Your task to perform on an android device: Go to notification settings Image 0: 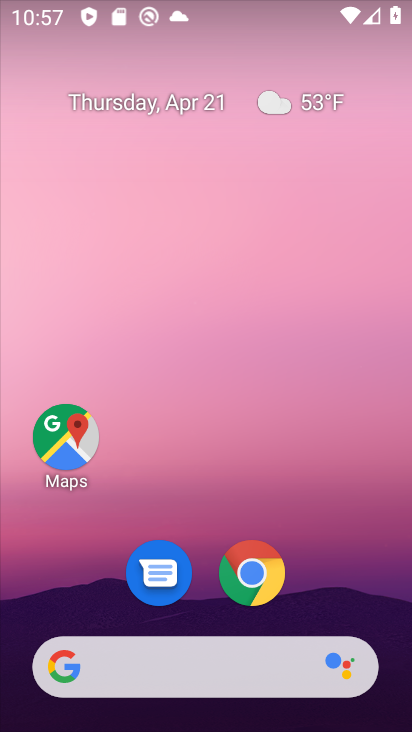
Step 0: drag from (348, 559) to (360, 103)
Your task to perform on an android device: Go to notification settings Image 1: 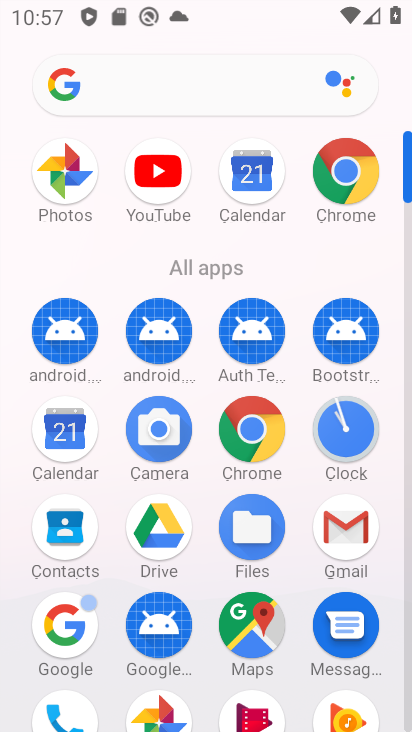
Step 1: drag from (300, 288) to (318, 4)
Your task to perform on an android device: Go to notification settings Image 2: 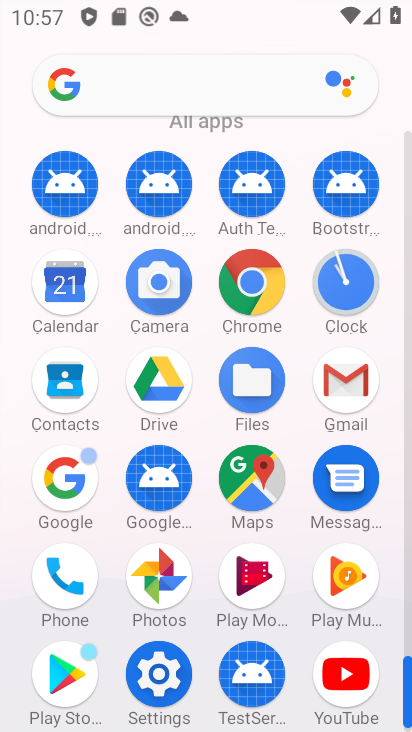
Step 2: click (174, 675)
Your task to perform on an android device: Go to notification settings Image 3: 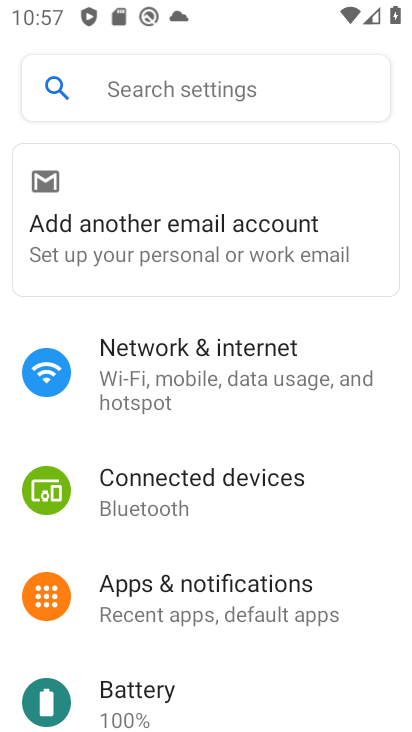
Step 3: click (272, 585)
Your task to perform on an android device: Go to notification settings Image 4: 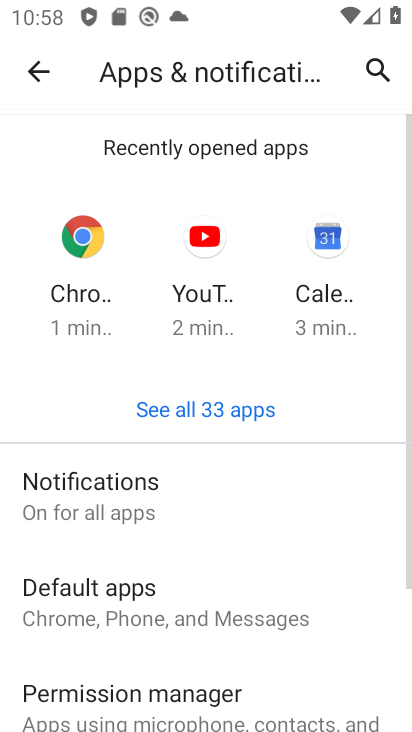
Step 4: click (124, 495)
Your task to perform on an android device: Go to notification settings Image 5: 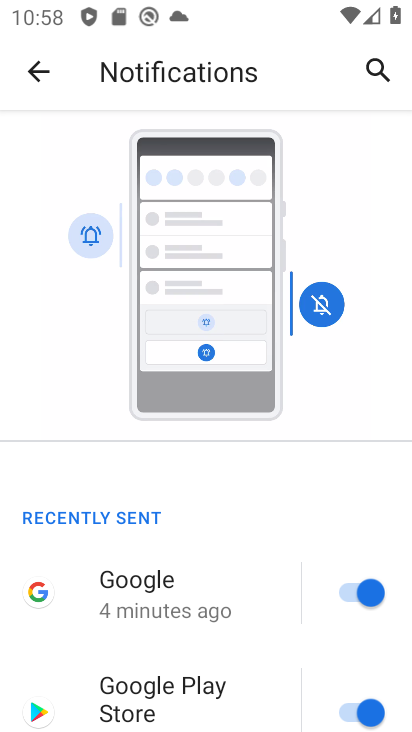
Step 5: task complete